Your task to perform on an android device: Go to location settings Image 0: 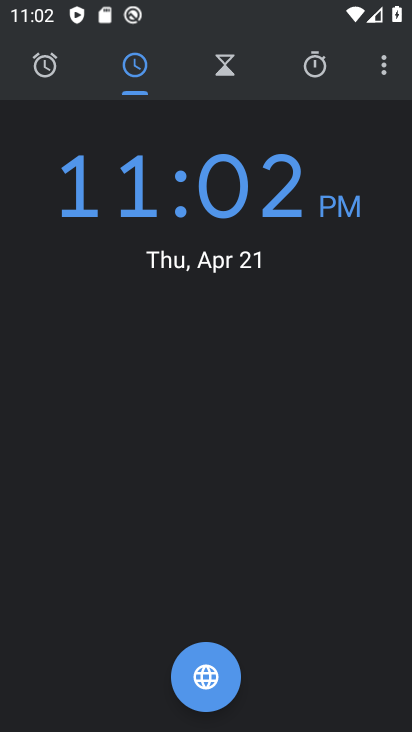
Step 0: press home button
Your task to perform on an android device: Go to location settings Image 1: 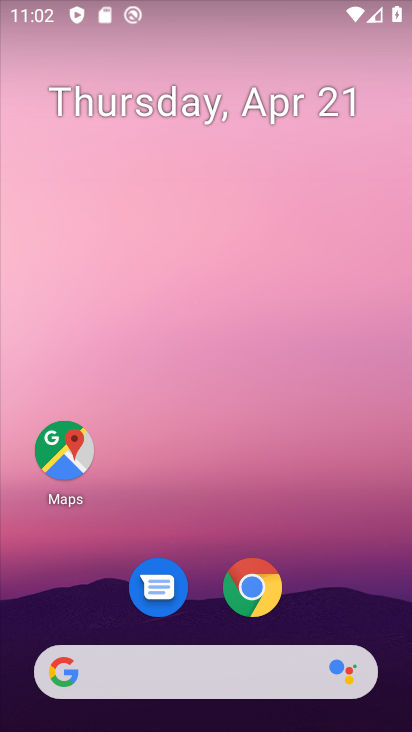
Step 1: drag from (218, 701) to (210, 120)
Your task to perform on an android device: Go to location settings Image 2: 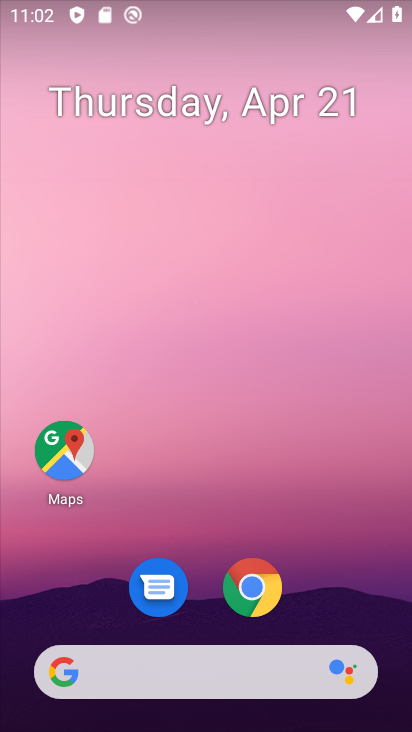
Step 2: drag from (206, 710) to (195, 153)
Your task to perform on an android device: Go to location settings Image 3: 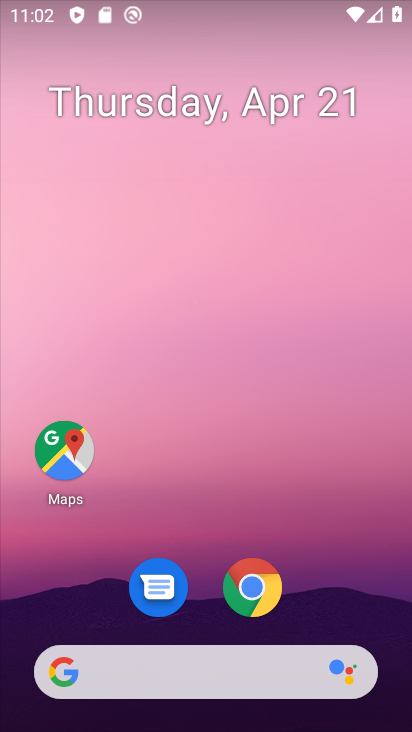
Step 3: drag from (222, 709) to (222, 160)
Your task to perform on an android device: Go to location settings Image 4: 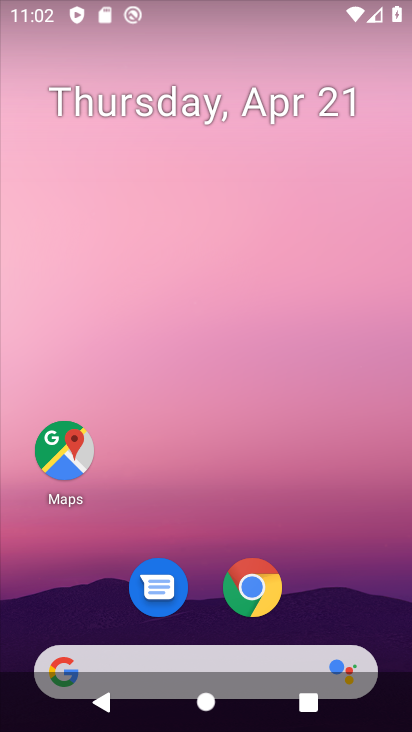
Step 4: drag from (207, 647) to (206, 146)
Your task to perform on an android device: Go to location settings Image 5: 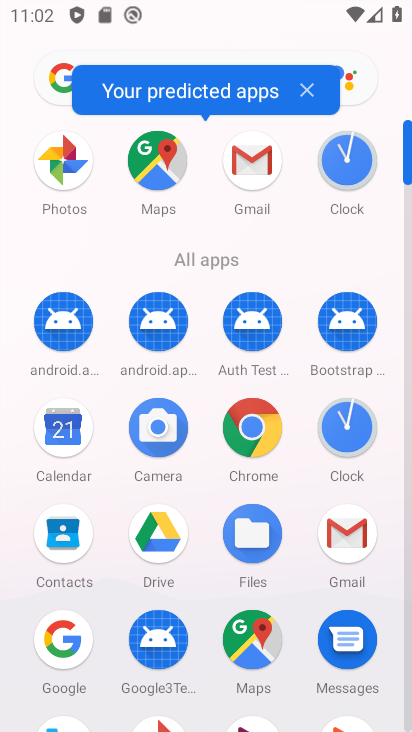
Step 5: drag from (208, 663) to (208, 242)
Your task to perform on an android device: Go to location settings Image 6: 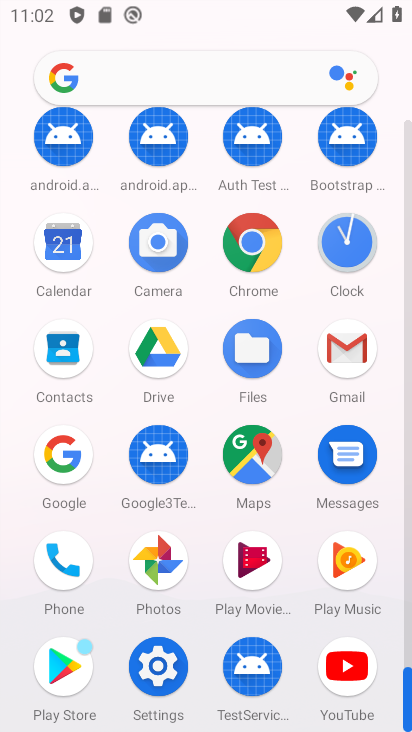
Step 6: click (157, 660)
Your task to perform on an android device: Go to location settings Image 7: 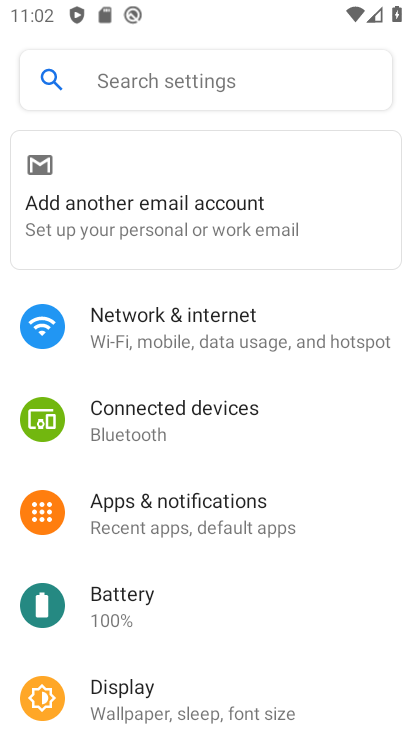
Step 7: drag from (202, 684) to (193, 295)
Your task to perform on an android device: Go to location settings Image 8: 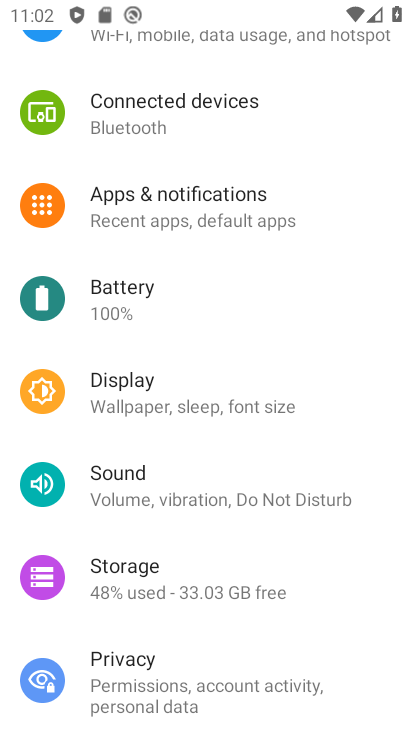
Step 8: drag from (210, 659) to (192, 302)
Your task to perform on an android device: Go to location settings Image 9: 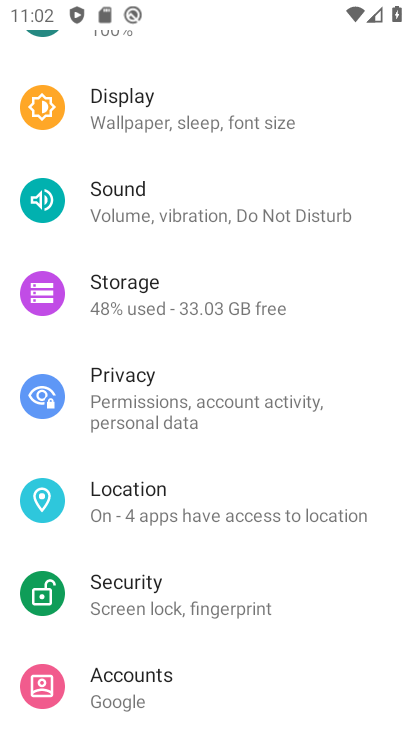
Step 9: click (128, 501)
Your task to perform on an android device: Go to location settings Image 10: 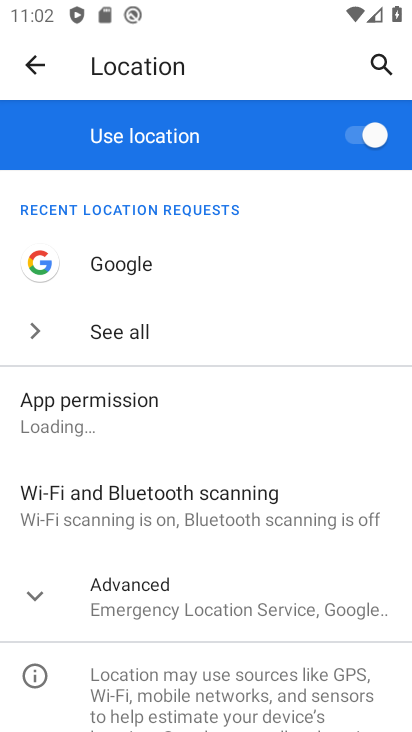
Step 10: task complete